Your task to perform on an android device: see sites visited before in the chrome app Image 0: 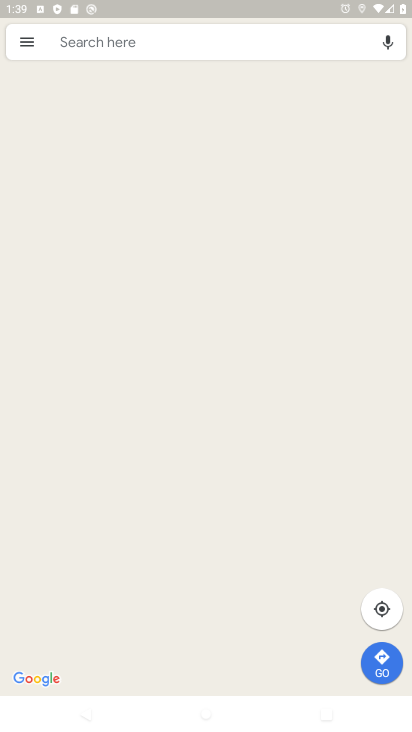
Step 0: press home button
Your task to perform on an android device: see sites visited before in the chrome app Image 1: 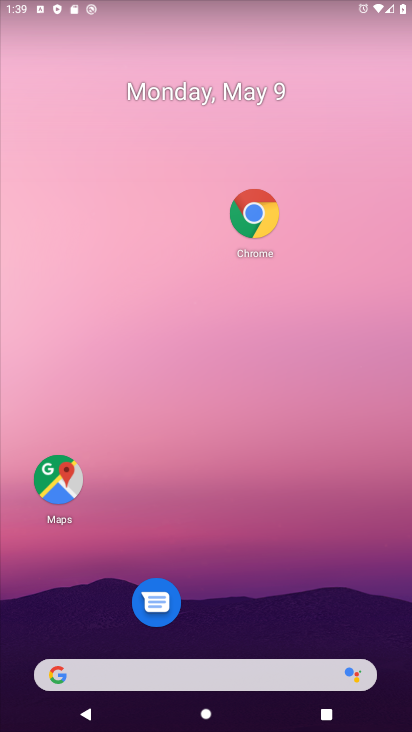
Step 1: click (258, 245)
Your task to perform on an android device: see sites visited before in the chrome app Image 2: 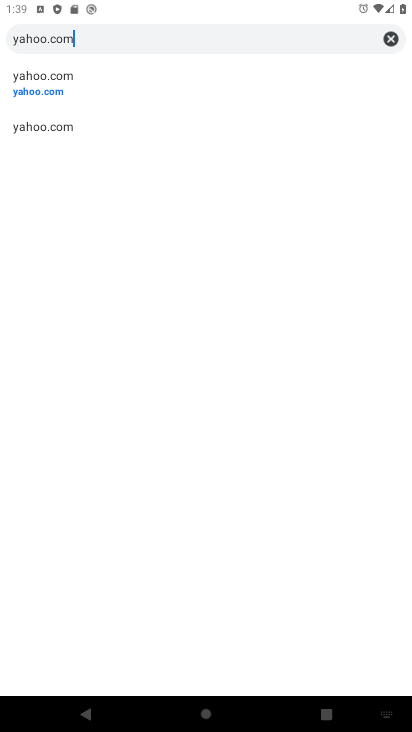
Step 2: click (391, 44)
Your task to perform on an android device: see sites visited before in the chrome app Image 3: 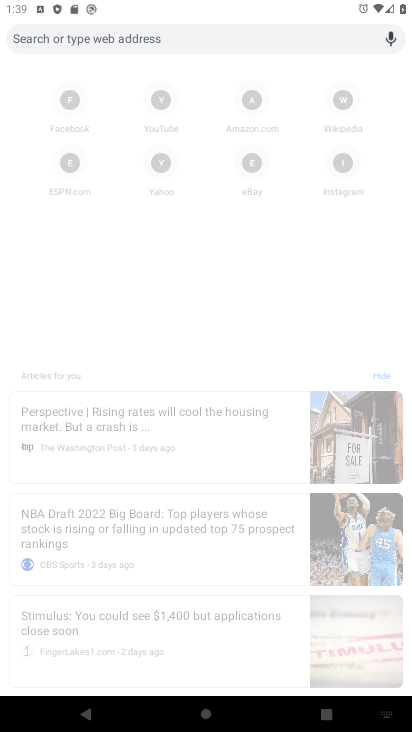
Step 3: click (260, 319)
Your task to perform on an android device: see sites visited before in the chrome app Image 4: 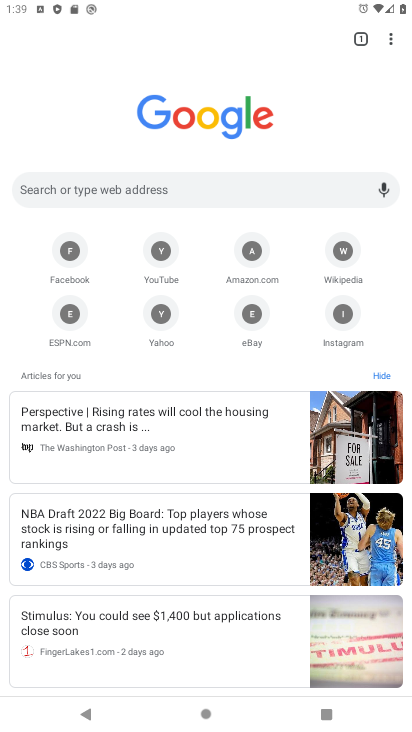
Step 4: click (394, 31)
Your task to perform on an android device: see sites visited before in the chrome app Image 5: 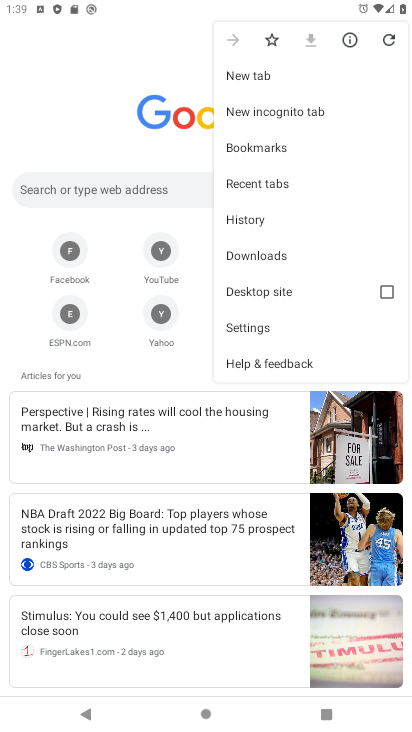
Step 5: click (303, 321)
Your task to perform on an android device: see sites visited before in the chrome app Image 6: 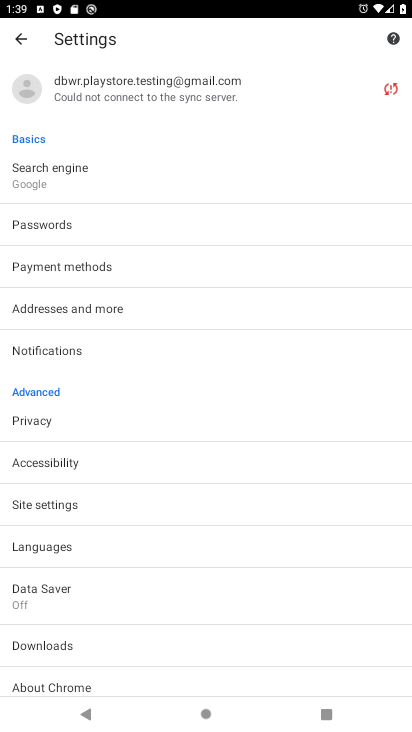
Step 6: click (11, 37)
Your task to perform on an android device: see sites visited before in the chrome app Image 7: 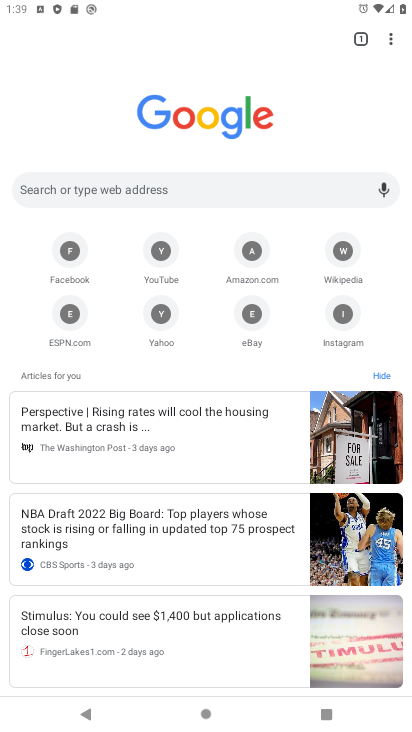
Step 7: click (394, 49)
Your task to perform on an android device: see sites visited before in the chrome app Image 8: 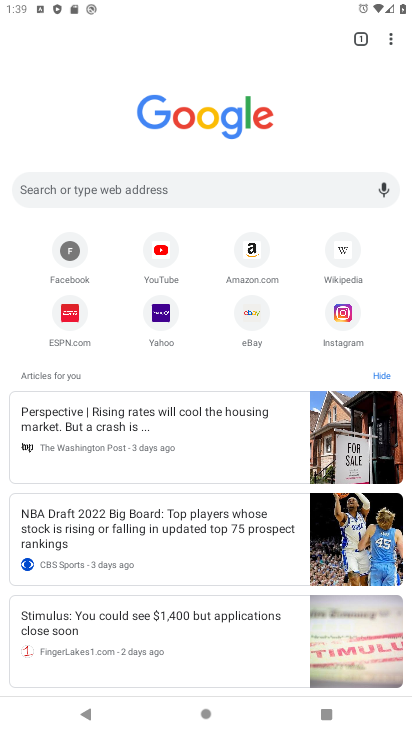
Step 8: click (390, 53)
Your task to perform on an android device: see sites visited before in the chrome app Image 9: 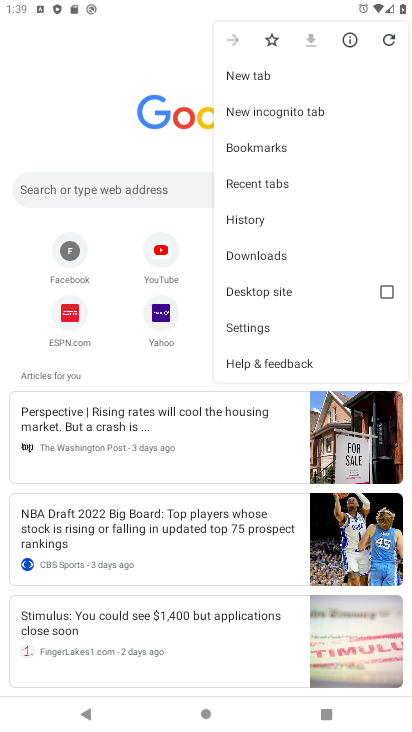
Step 9: click (293, 186)
Your task to perform on an android device: see sites visited before in the chrome app Image 10: 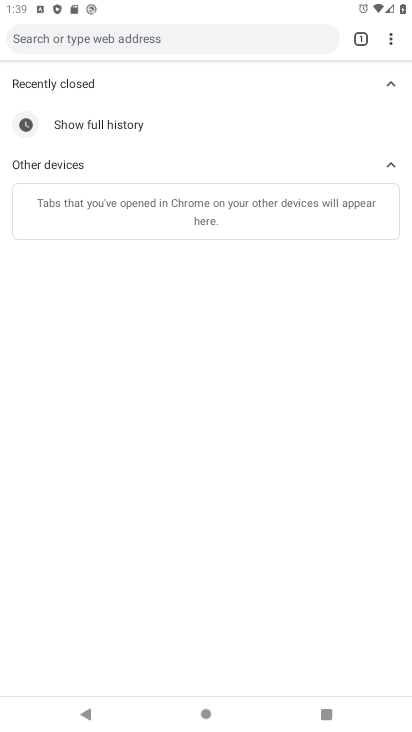
Step 10: task complete